Your task to perform on an android device: see tabs open on other devices in the chrome app Image 0: 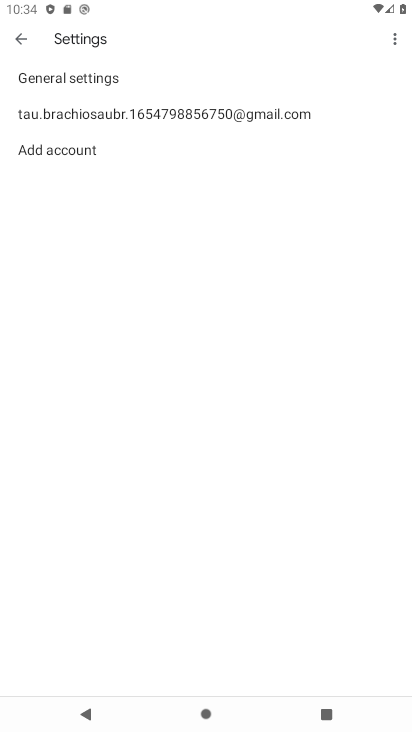
Step 0: press home button
Your task to perform on an android device: see tabs open on other devices in the chrome app Image 1: 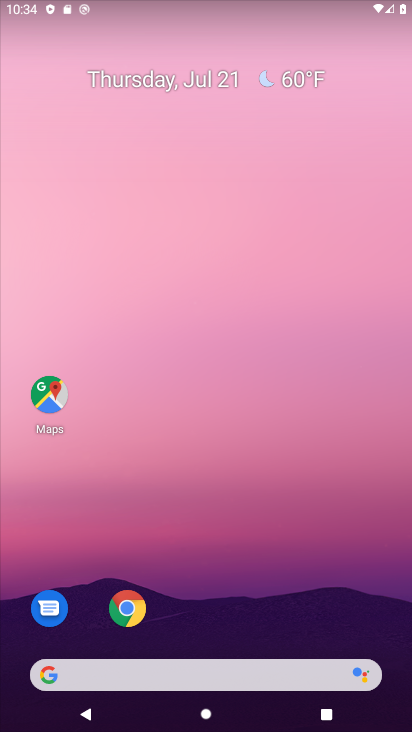
Step 1: click (130, 611)
Your task to perform on an android device: see tabs open on other devices in the chrome app Image 2: 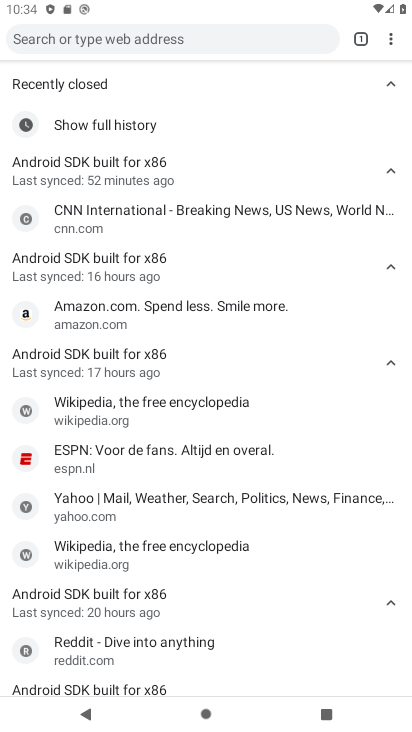
Step 2: task complete